Your task to perform on an android device: turn on notifications settings in the gmail app Image 0: 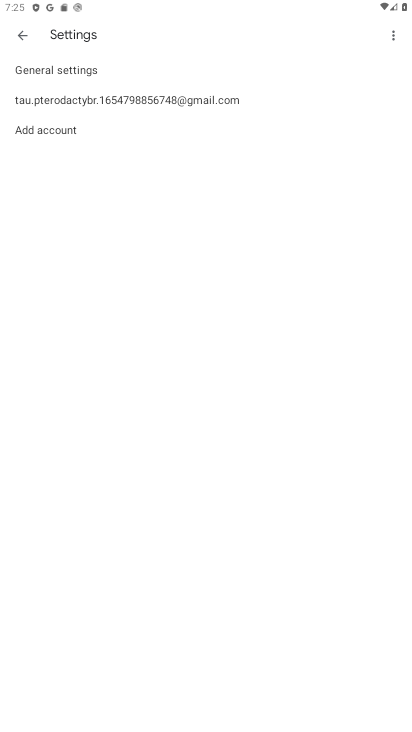
Step 0: press home button
Your task to perform on an android device: turn on notifications settings in the gmail app Image 1: 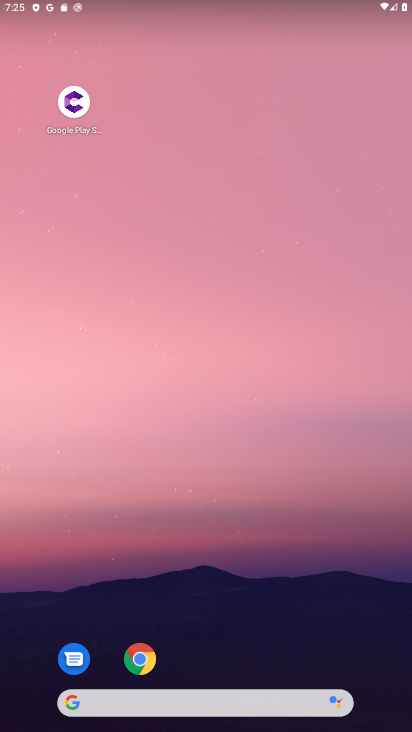
Step 1: drag from (196, 692) to (210, 70)
Your task to perform on an android device: turn on notifications settings in the gmail app Image 2: 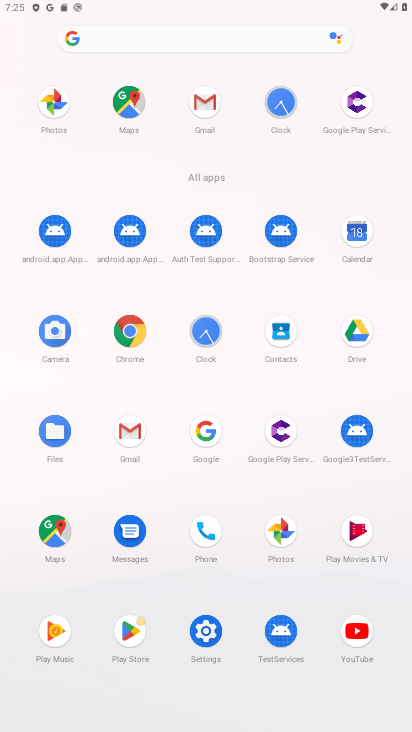
Step 2: click (203, 103)
Your task to perform on an android device: turn on notifications settings in the gmail app Image 3: 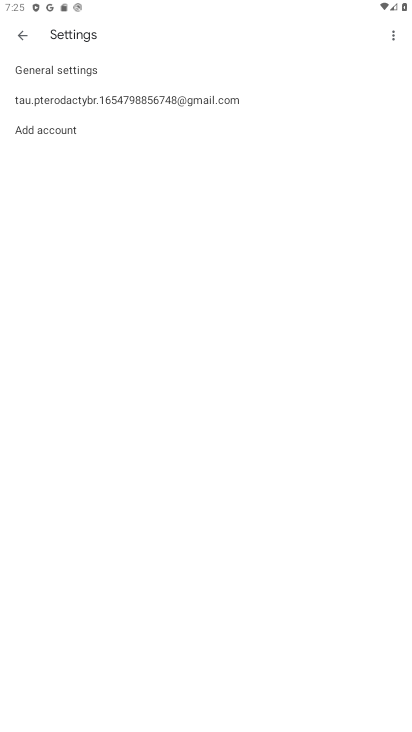
Step 3: click (200, 96)
Your task to perform on an android device: turn on notifications settings in the gmail app Image 4: 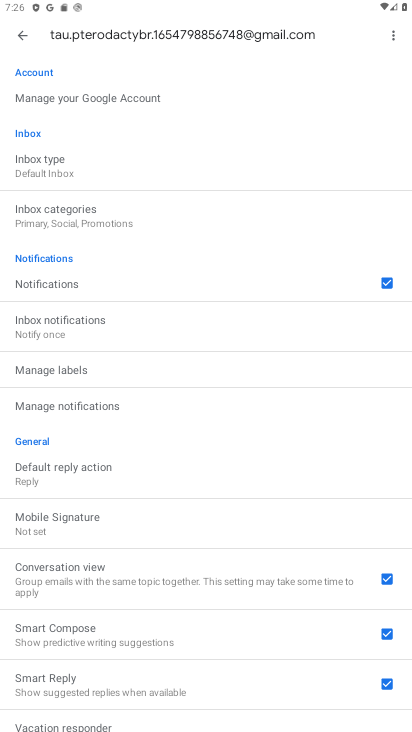
Step 4: click (65, 411)
Your task to perform on an android device: turn on notifications settings in the gmail app Image 5: 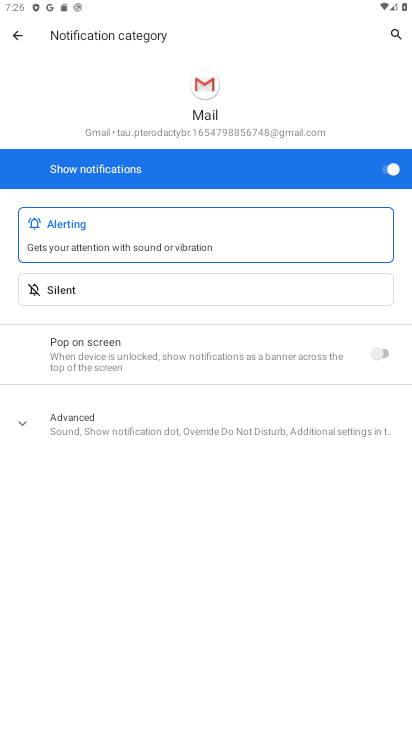
Step 5: task complete